Your task to perform on an android device: Go to ESPN.com Image 0: 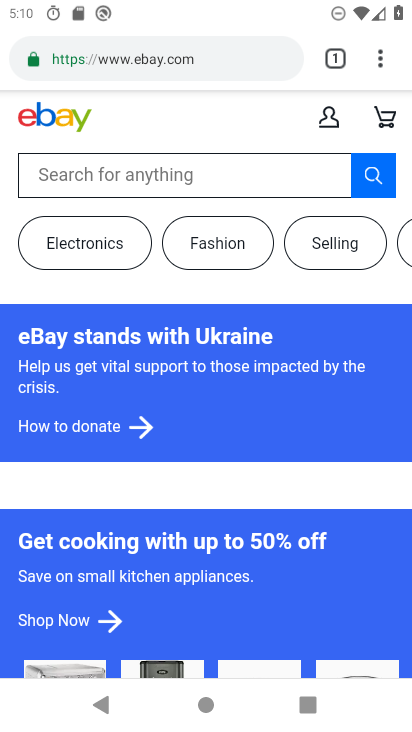
Step 0: press home button
Your task to perform on an android device: Go to ESPN.com Image 1: 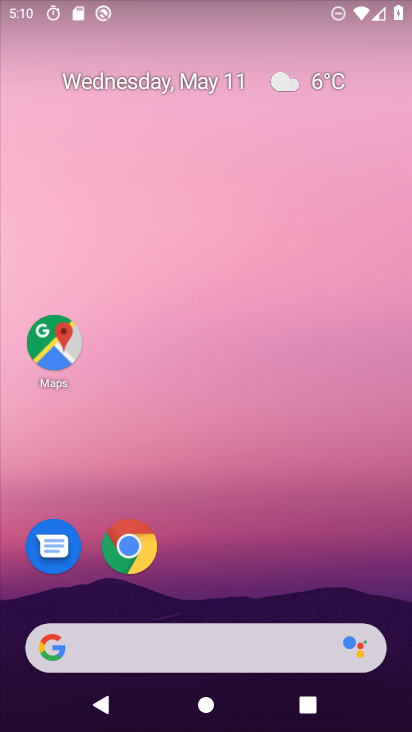
Step 1: click (128, 541)
Your task to perform on an android device: Go to ESPN.com Image 2: 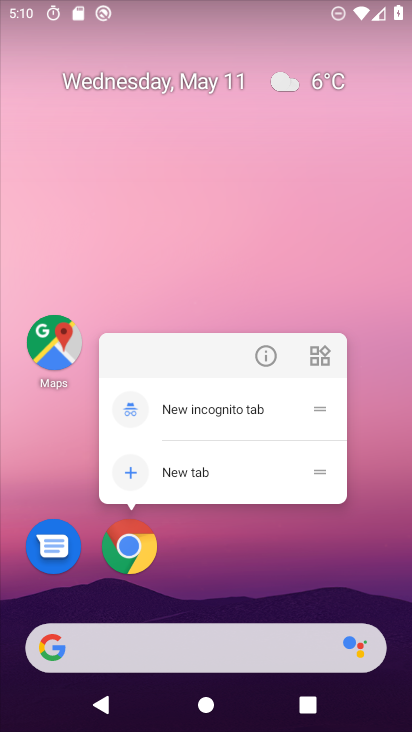
Step 2: click (124, 545)
Your task to perform on an android device: Go to ESPN.com Image 3: 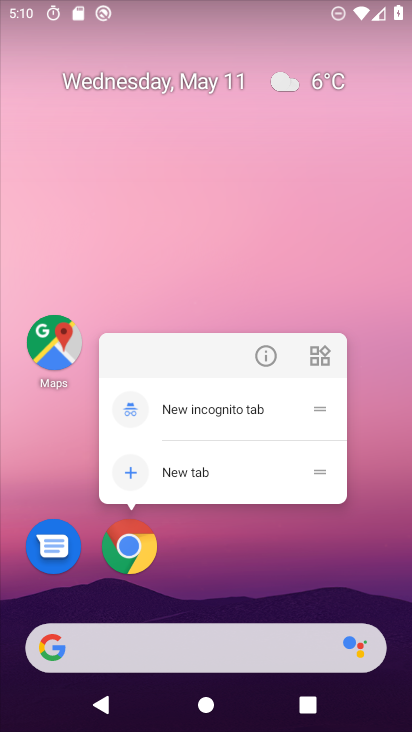
Step 3: click (126, 545)
Your task to perform on an android device: Go to ESPN.com Image 4: 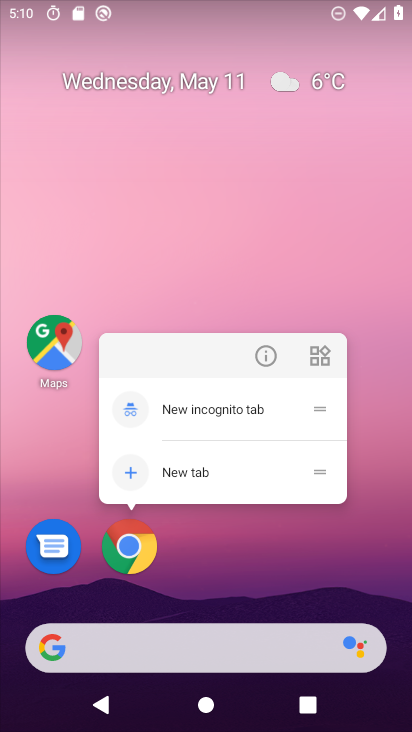
Step 4: click (138, 552)
Your task to perform on an android device: Go to ESPN.com Image 5: 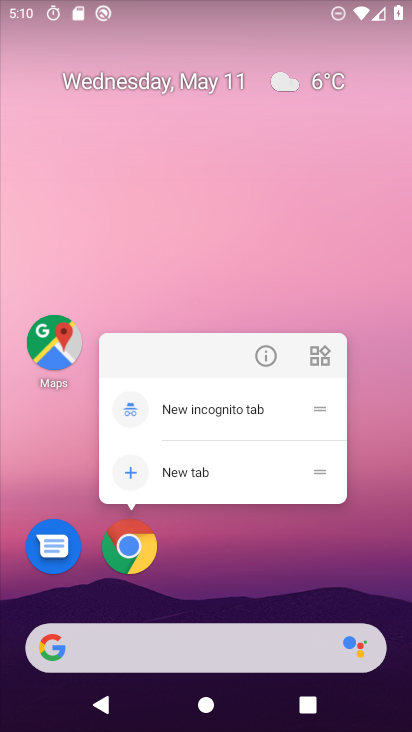
Step 5: click (138, 552)
Your task to perform on an android device: Go to ESPN.com Image 6: 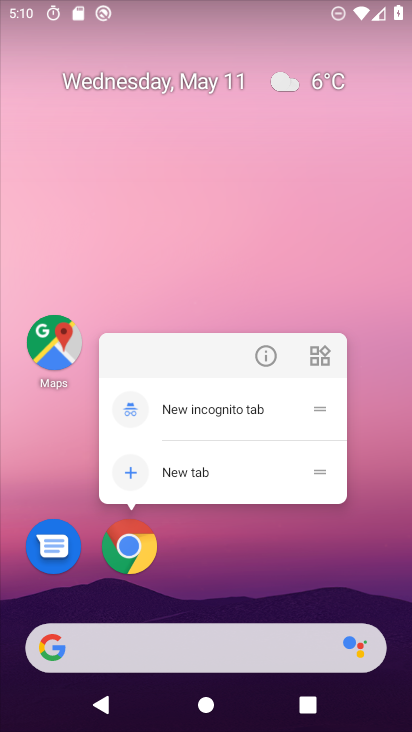
Step 6: click (130, 542)
Your task to perform on an android device: Go to ESPN.com Image 7: 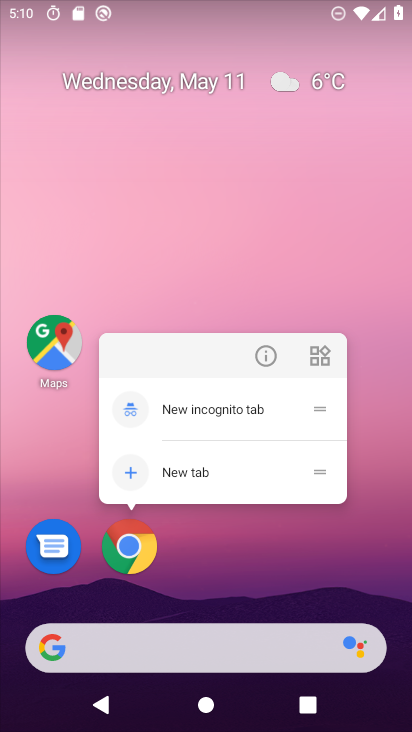
Step 7: click (134, 548)
Your task to perform on an android device: Go to ESPN.com Image 8: 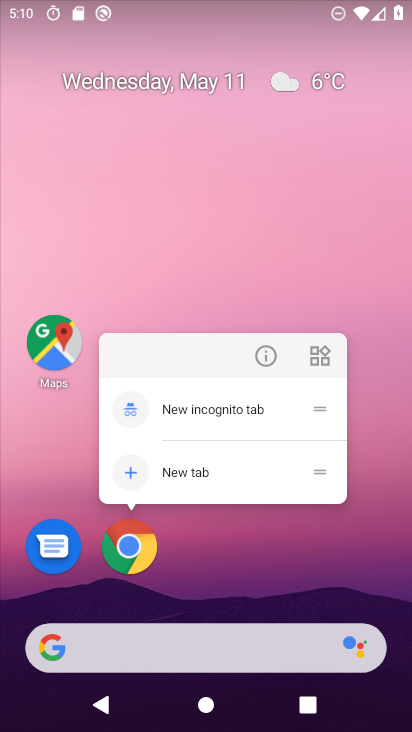
Step 8: click (116, 579)
Your task to perform on an android device: Go to ESPN.com Image 9: 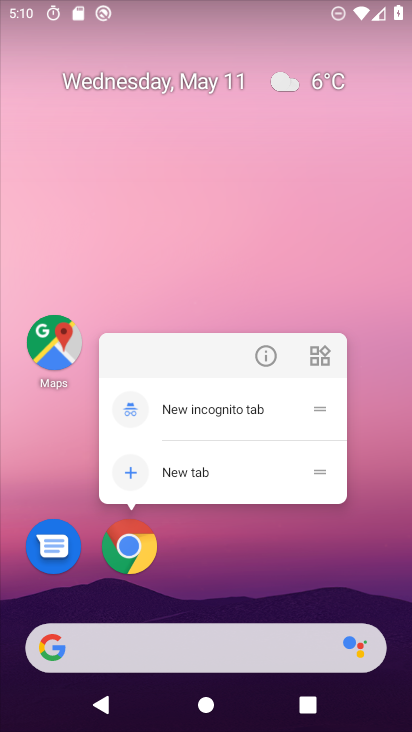
Step 9: click (114, 560)
Your task to perform on an android device: Go to ESPN.com Image 10: 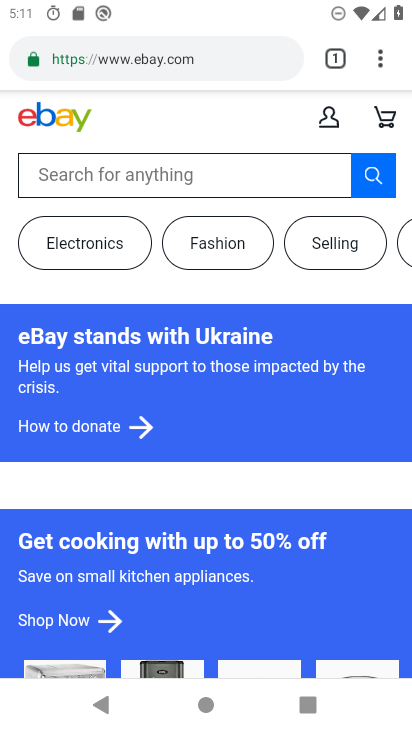
Step 10: click (335, 60)
Your task to perform on an android device: Go to ESPN.com Image 11: 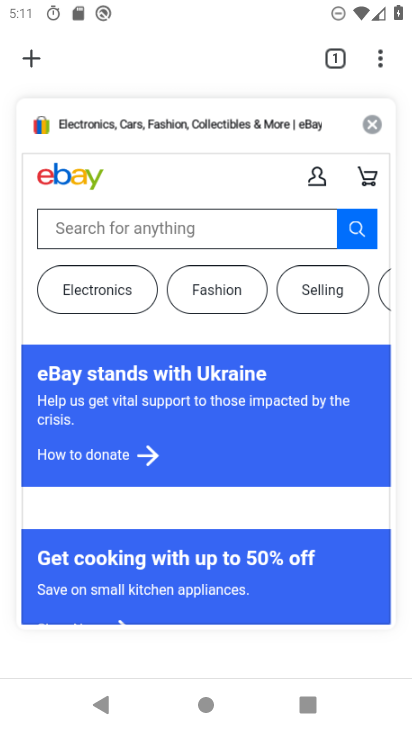
Step 11: click (33, 60)
Your task to perform on an android device: Go to ESPN.com Image 12: 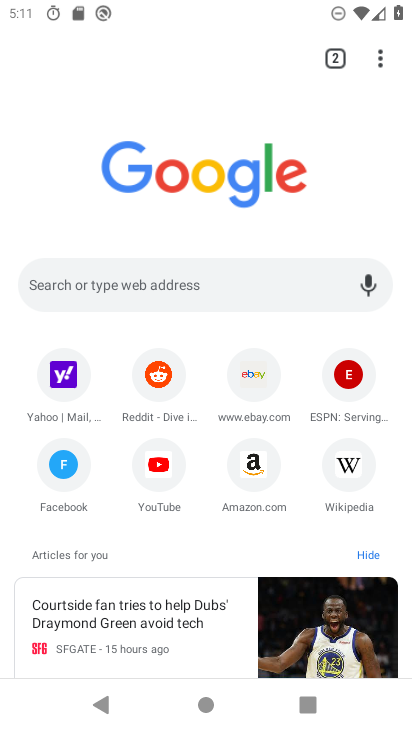
Step 12: click (350, 388)
Your task to perform on an android device: Go to ESPN.com Image 13: 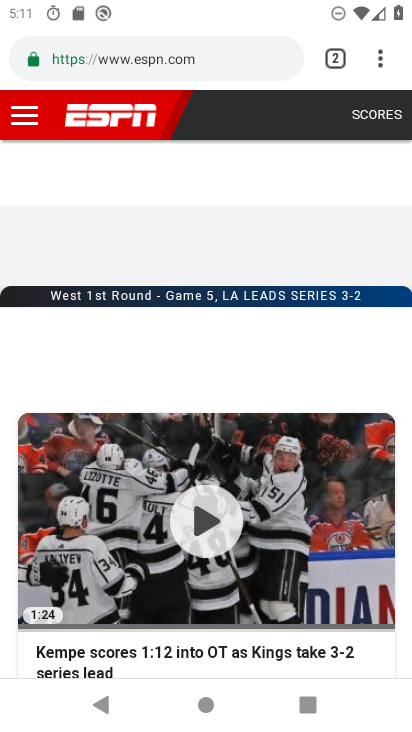
Step 13: task complete